Your task to perform on an android device: Open Google Maps and go to "Timeline" Image 0: 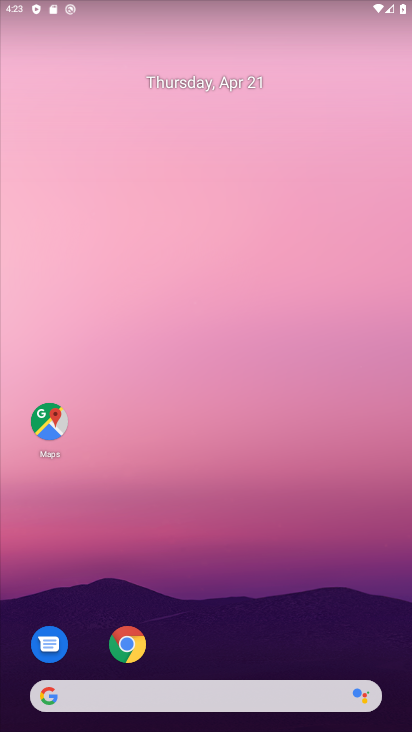
Step 0: drag from (210, 712) to (221, 136)
Your task to perform on an android device: Open Google Maps and go to "Timeline" Image 1: 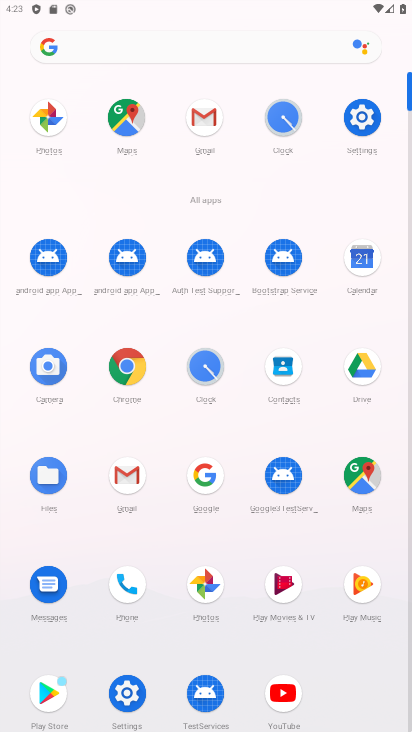
Step 1: click (357, 471)
Your task to perform on an android device: Open Google Maps and go to "Timeline" Image 2: 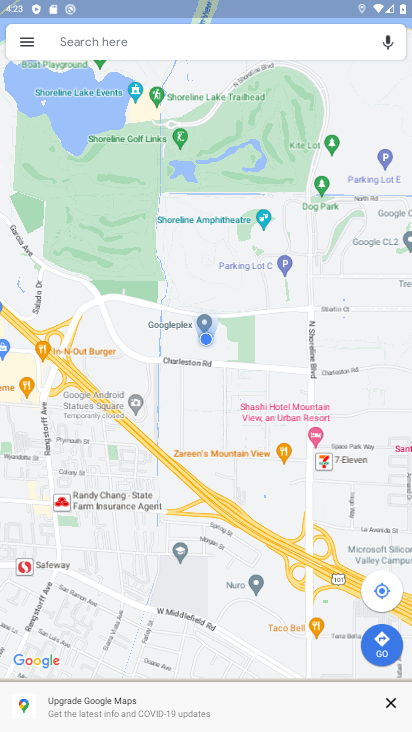
Step 2: click (19, 44)
Your task to perform on an android device: Open Google Maps and go to "Timeline" Image 3: 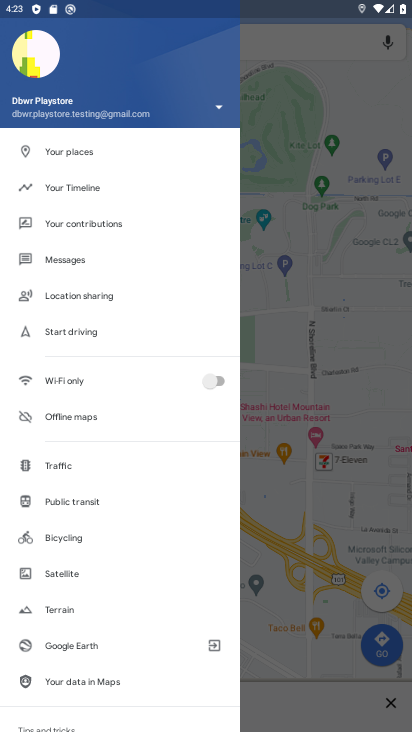
Step 3: click (71, 184)
Your task to perform on an android device: Open Google Maps and go to "Timeline" Image 4: 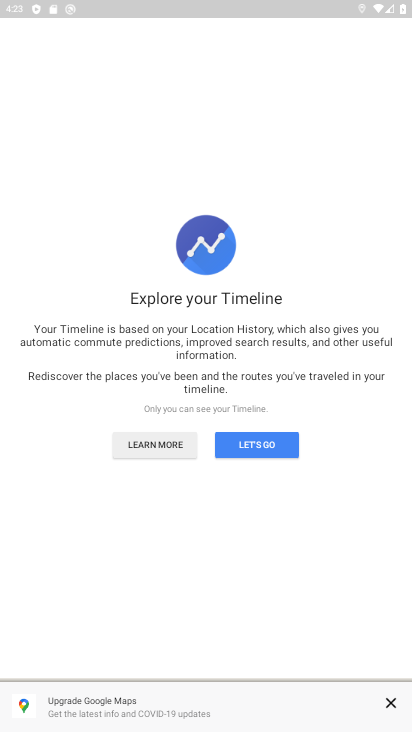
Step 4: click (252, 447)
Your task to perform on an android device: Open Google Maps and go to "Timeline" Image 5: 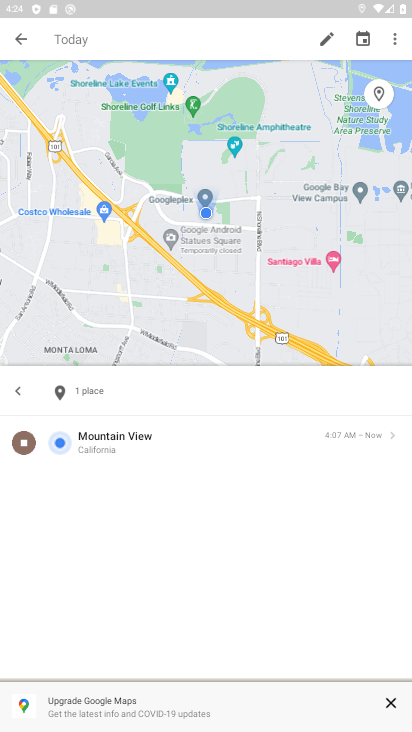
Step 5: task complete